Your task to perform on an android device: open a new tab in the chrome app Image 0: 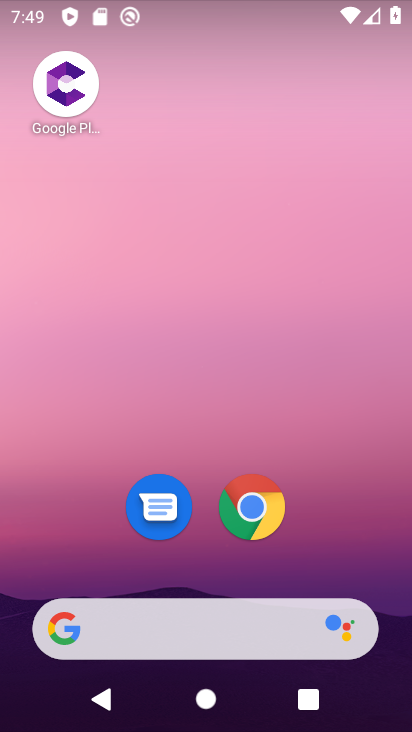
Step 0: click (261, 509)
Your task to perform on an android device: open a new tab in the chrome app Image 1: 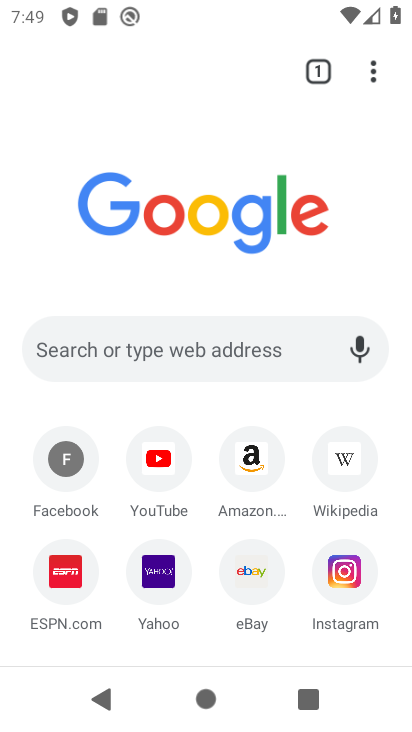
Step 1: click (368, 72)
Your task to perform on an android device: open a new tab in the chrome app Image 2: 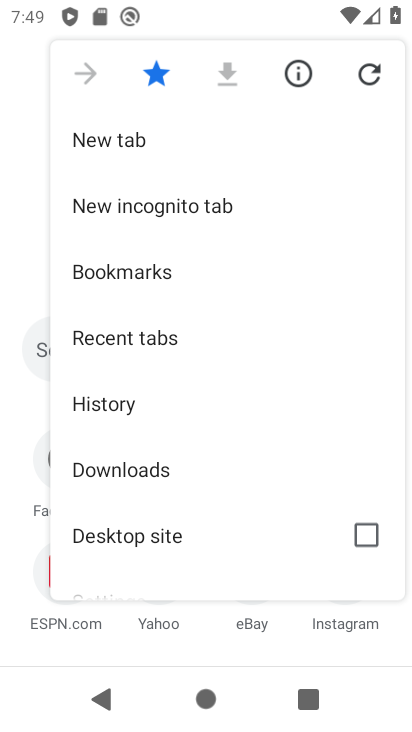
Step 2: click (103, 134)
Your task to perform on an android device: open a new tab in the chrome app Image 3: 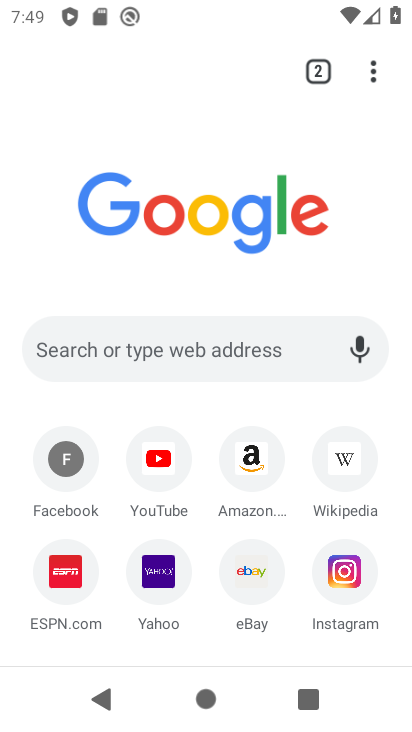
Step 3: task complete